Your task to perform on an android device: Go to Google Image 0: 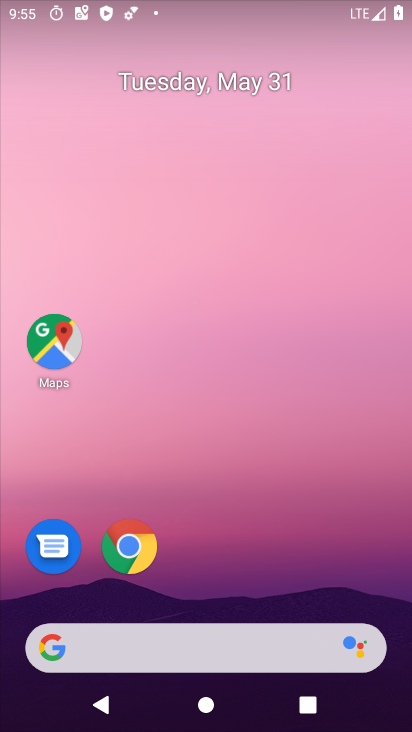
Step 0: click (182, 645)
Your task to perform on an android device: Go to Google Image 1: 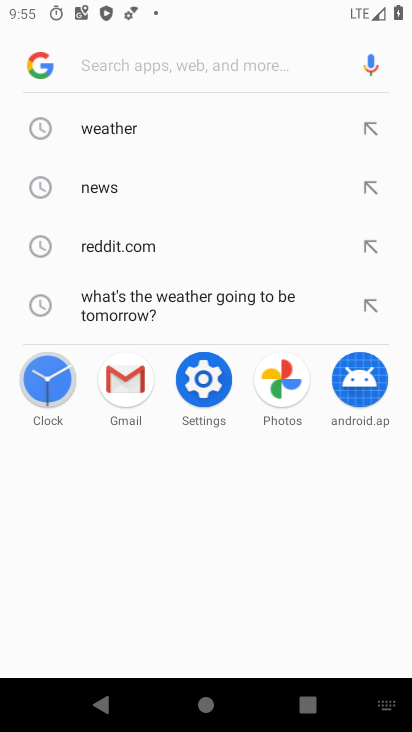
Step 1: task complete